Your task to perform on an android device: Go to privacy settings Image 0: 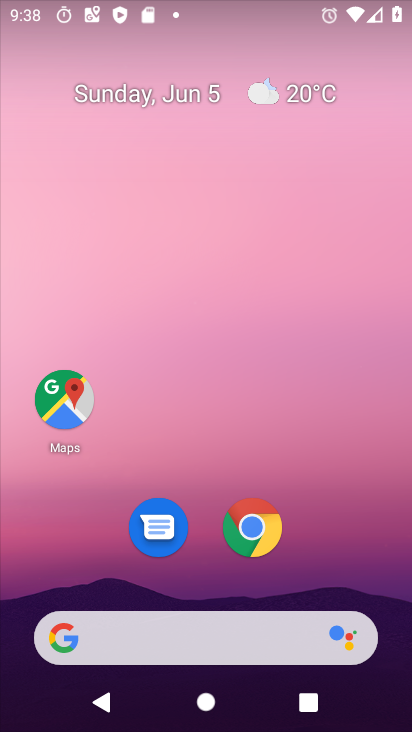
Step 0: drag from (370, 439) to (157, 4)
Your task to perform on an android device: Go to privacy settings Image 1: 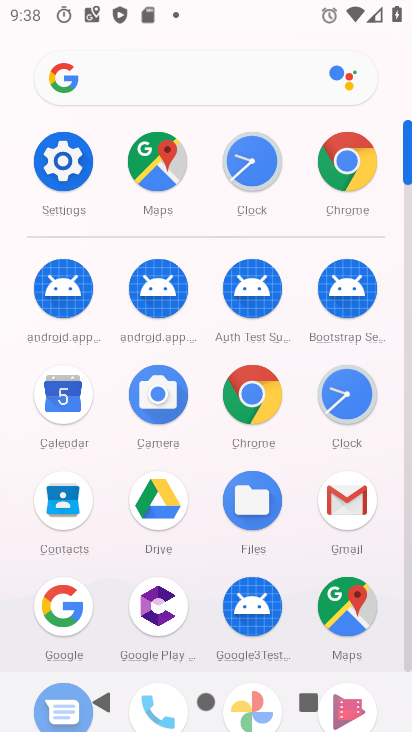
Step 1: click (65, 141)
Your task to perform on an android device: Go to privacy settings Image 2: 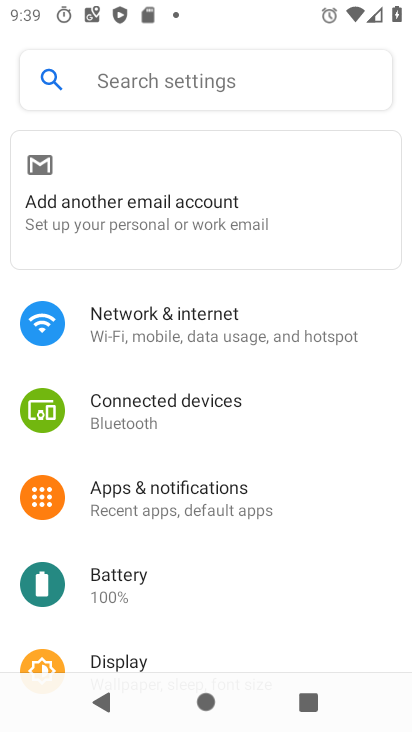
Step 2: drag from (200, 649) to (204, 143)
Your task to perform on an android device: Go to privacy settings Image 3: 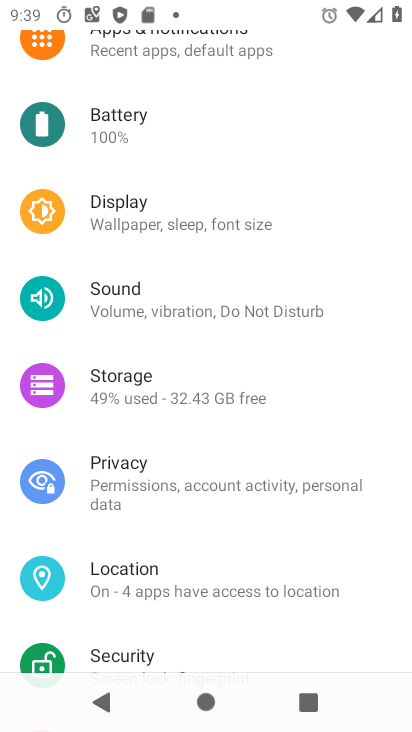
Step 3: click (182, 472)
Your task to perform on an android device: Go to privacy settings Image 4: 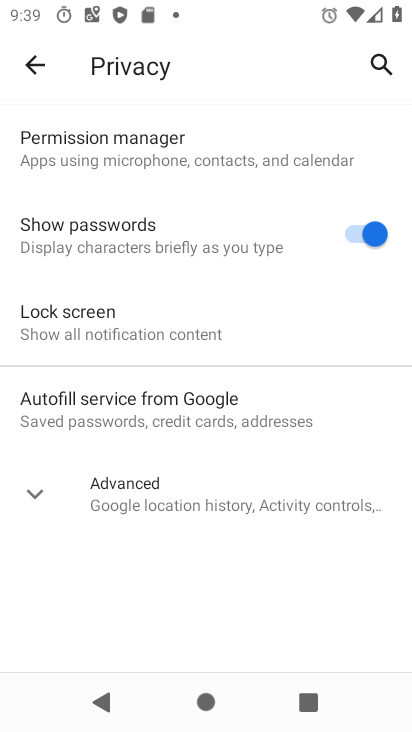
Step 4: task complete